Your task to perform on an android device: delete a single message in the gmail app Image 0: 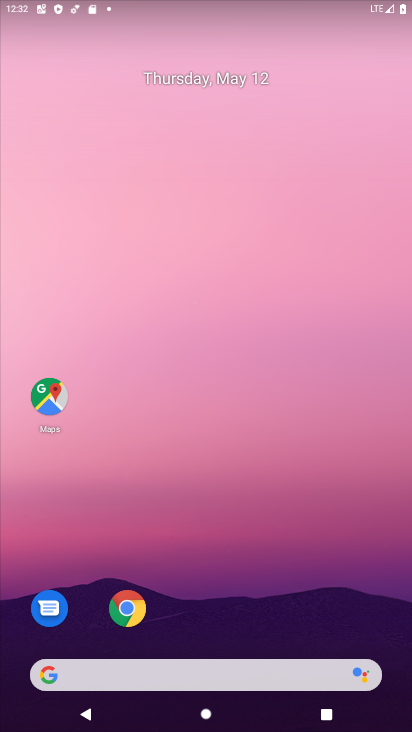
Step 0: drag from (249, 634) to (247, 42)
Your task to perform on an android device: delete a single message in the gmail app Image 1: 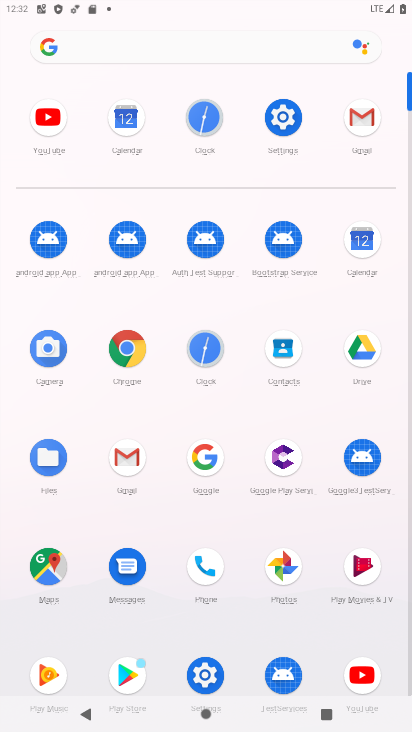
Step 1: click (364, 115)
Your task to perform on an android device: delete a single message in the gmail app Image 2: 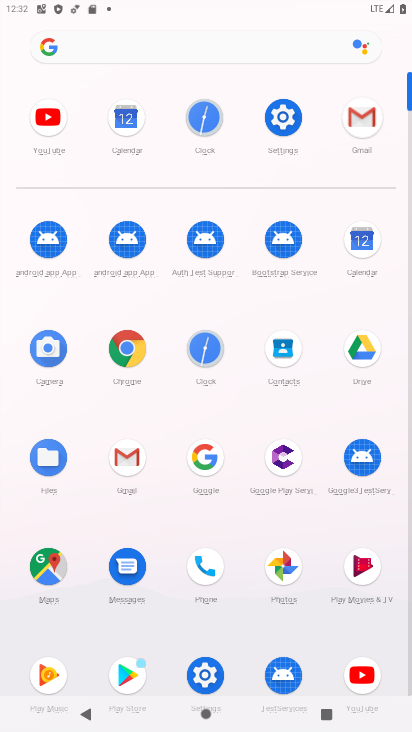
Step 2: click (367, 129)
Your task to perform on an android device: delete a single message in the gmail app Image 3: 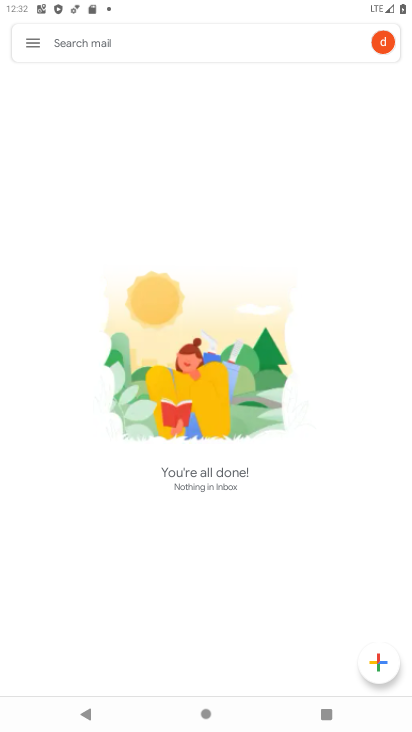
Step 3: click (23, 40)
Your task to perform on an android device: delete a single message in the gmail app Image 4: 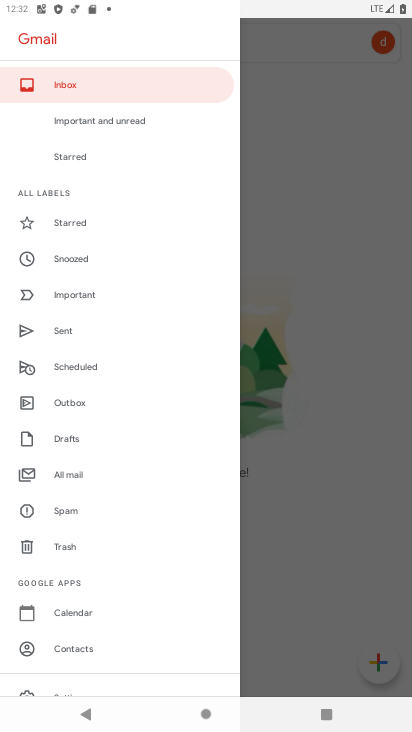
Step 4: click (65, 481)
Your task to perform on an android device: delete a single message in the gmail app Image 5: 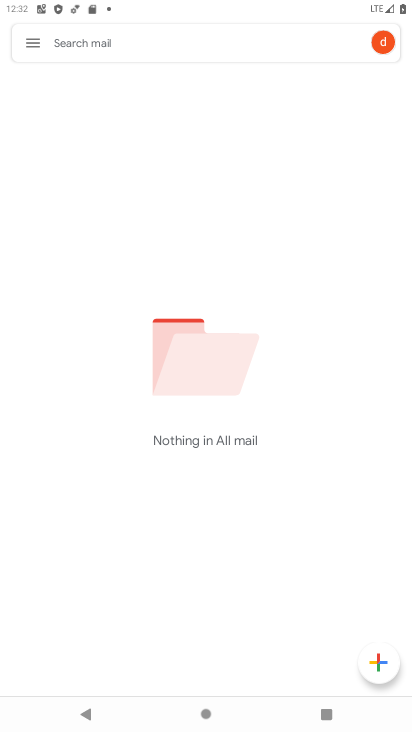
Step 5: task complete